Your task to perform on an android device: open a bookmark in the chrome app Image 0: 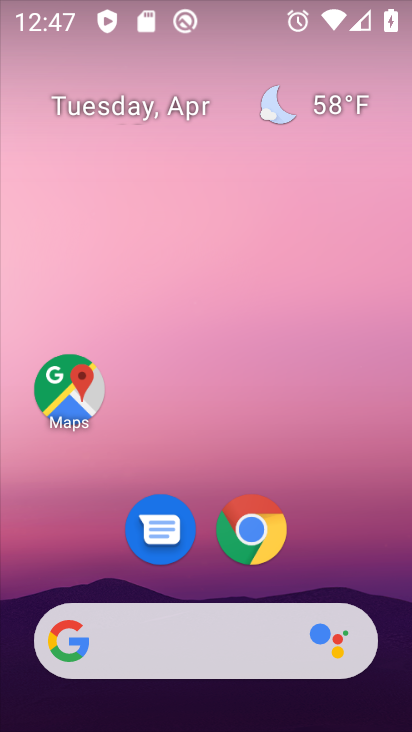
Step 0: drag from (389, 624) to (316, 70)
Your task to perform on an android device: open a bookmark in the chrome app Image 1: 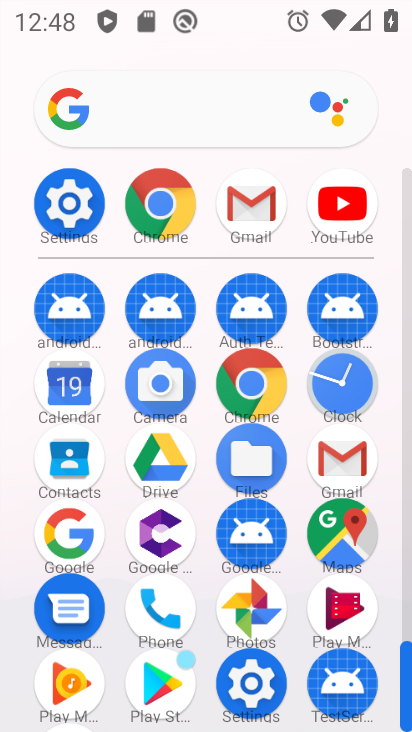
Step 1: click (249, 386)
Your task to perform on an android device: open a bookmark in the chrome app Image 2: 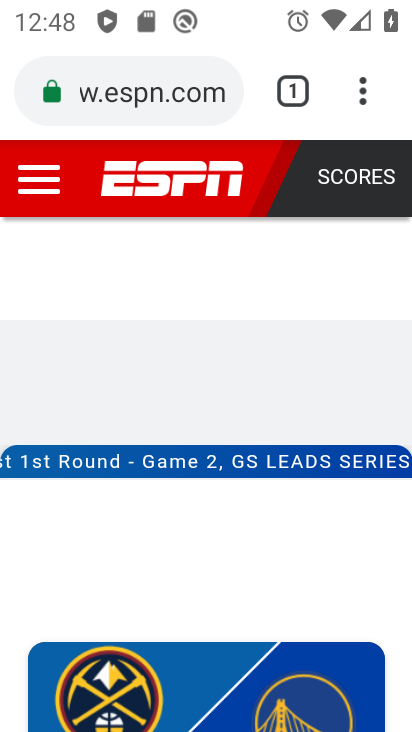
Step 2: press back button
Your task to perform on an android device: open a bookmark in the chrome app Image 3: 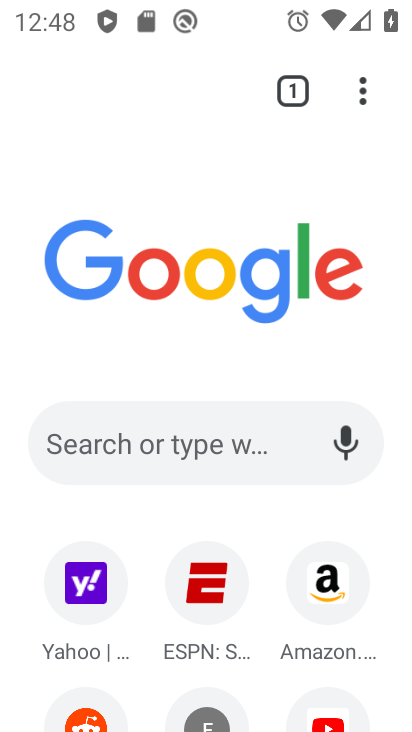
Step 3: click (364, 88)
Your task to perform on an android device: open a bookmark in the chrome app Image 4: 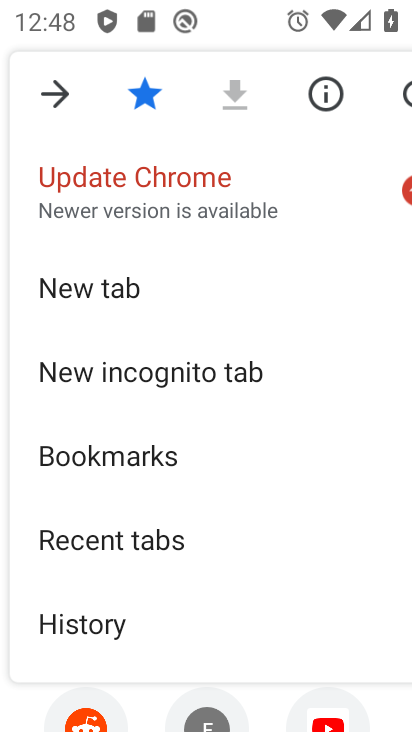
Step 4: click (180, 464)
Your task to perform on an android device: open a bookmark in the chrome app Image 5: 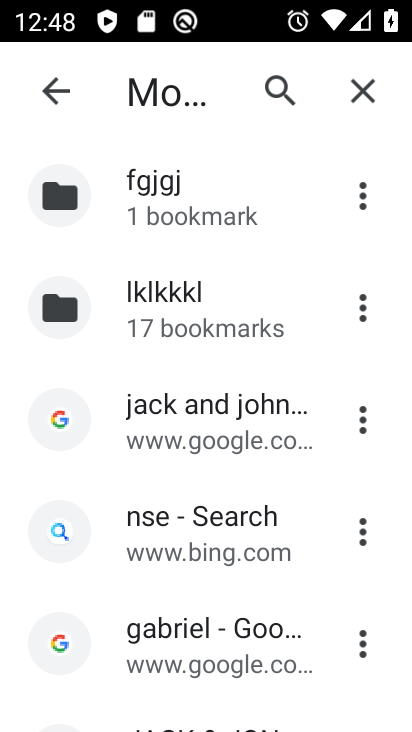
Step 5: task complete